Your task to perform on an android device: Open Wikipedia Image 0: 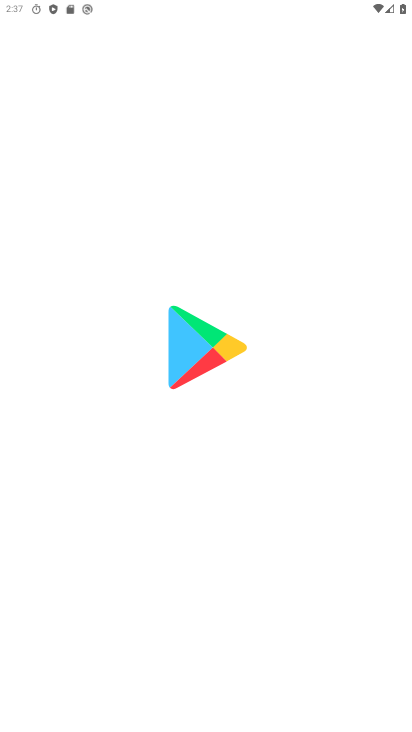
Step 0: click (38, 416)
Your task to perform on an android device: Open Wikipedia Image 1: 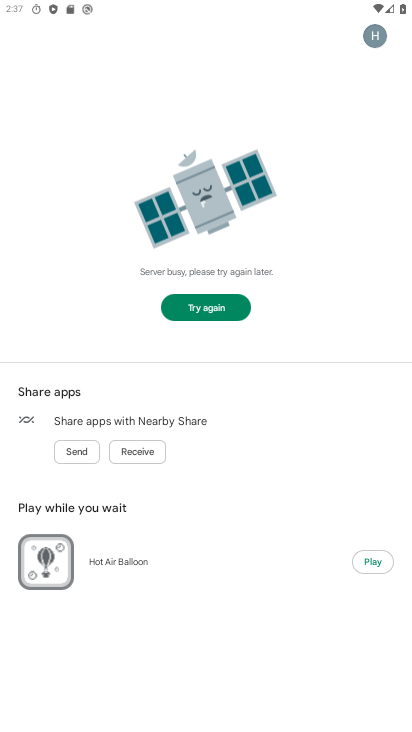
Step 1: press home button
Your task to perform on an android device: Open Wikipedia Image 2: 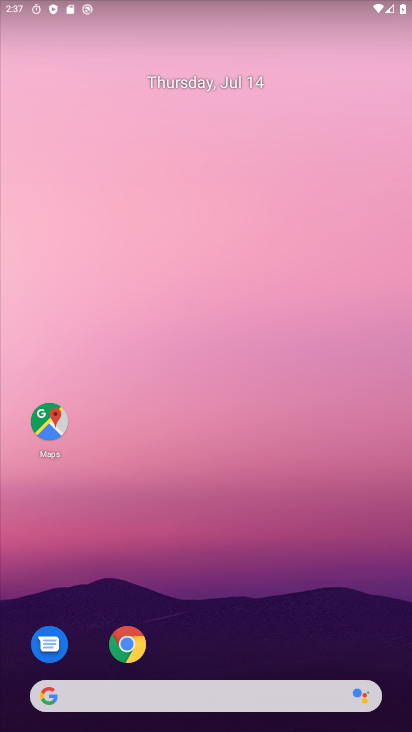
Step 2: click (96, 697)
Your task to perform on an android device: Open Wikipedia Image 3: 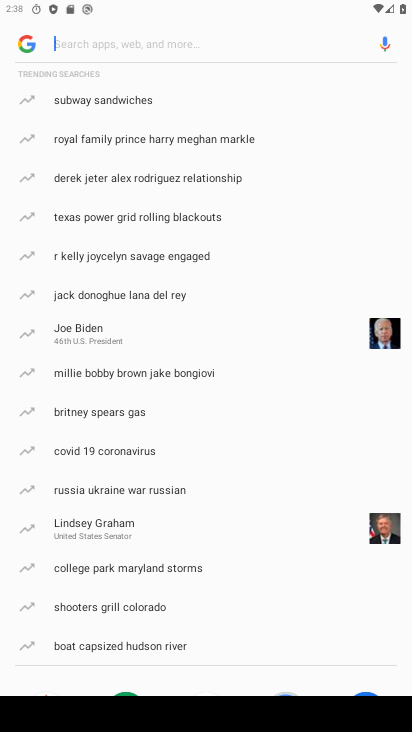
Step 3: type "Wikipedia"
Your task to perform on an android device: Open Wikipedia Image 4: 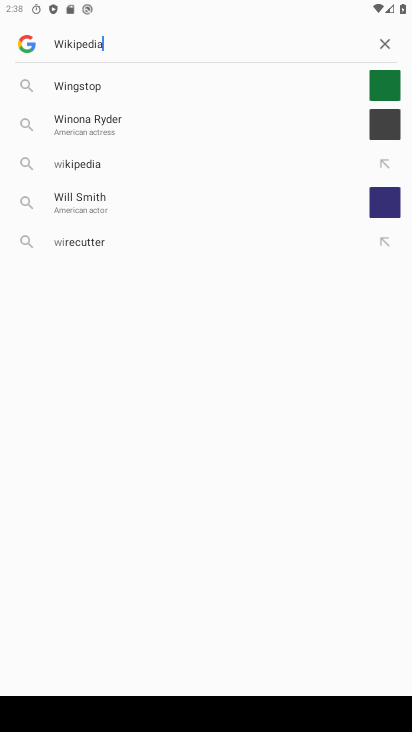
Step 4: type ""
Your task to perform on an android device: Open Wikipedia Image 5: 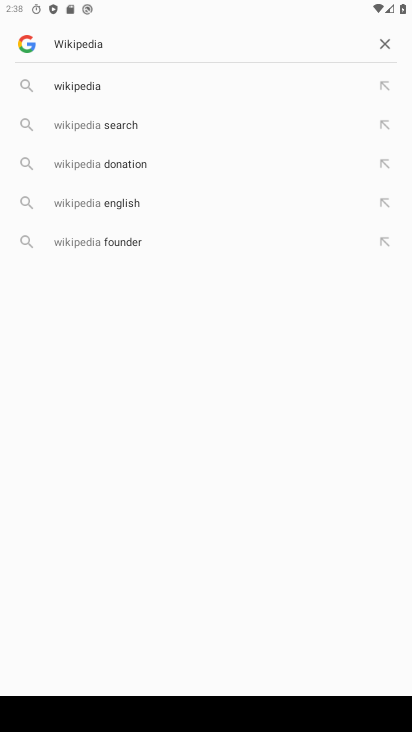
Step 5: type ""
Your task to perform on an android device: Open Wikipedia Image 6: 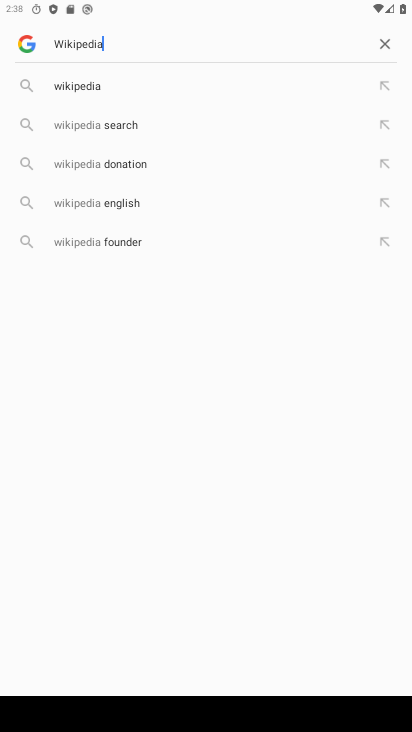
Step 6: type ""
Your task to perform on an android device: Open Wikipedia Image 7: 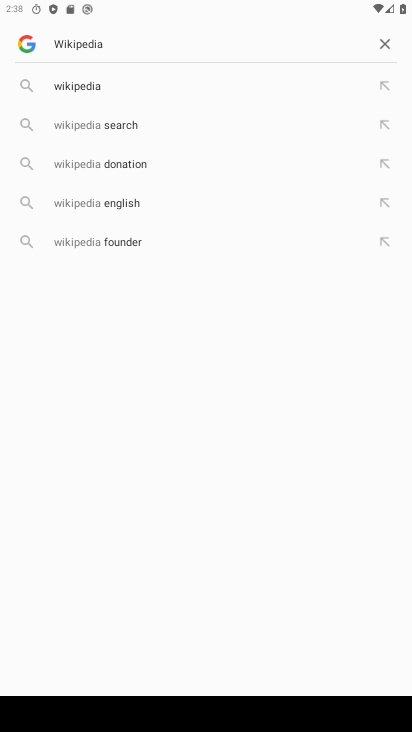
Step 7: click (61, 97)
Your task to perform on an android device: Open Wikipedia Image 8: 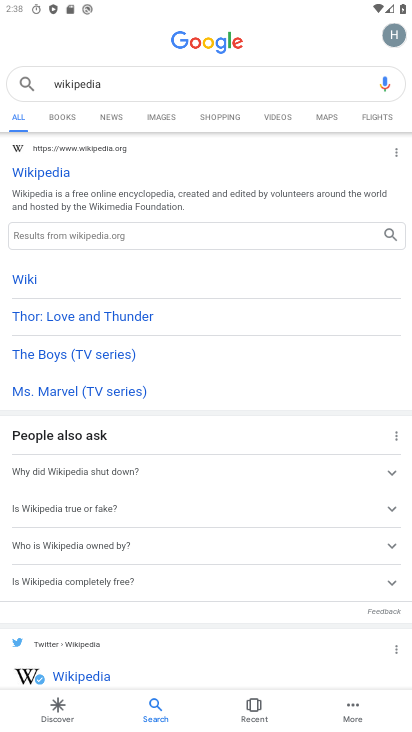
Step 8: task complete